Your task to perform on an android device: Empty the shopping cart on walmart.com. Search for "usb-c" on walmart.com, select the first entry, and add it to the cart. Image 0: 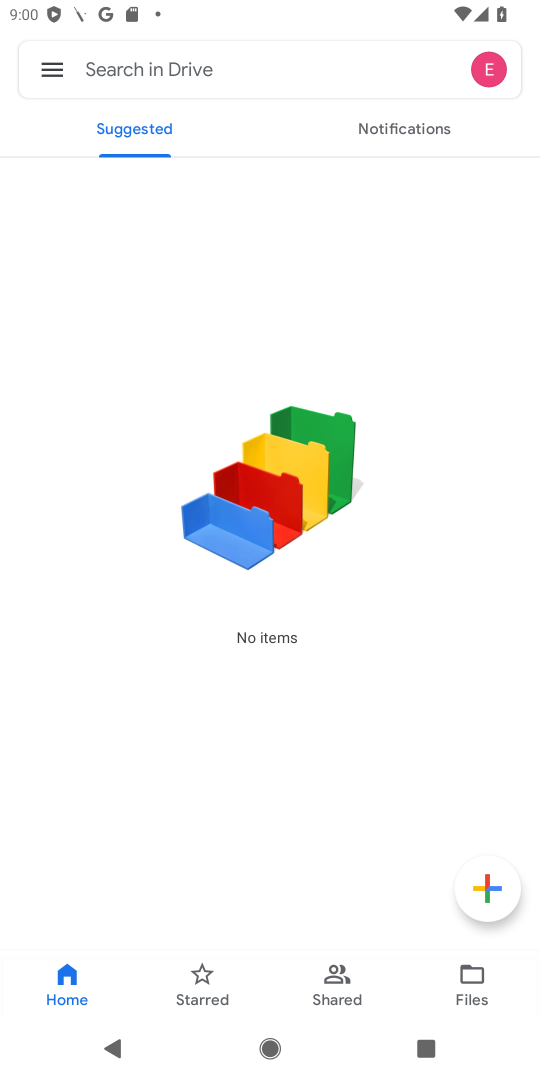
Step 0: press home button
Your task to perform on an android device: Empty the shopping cart on walmart.com. Search for "usb-c" on walmart.com, select the first entry, and add it to the cart. Image 1: 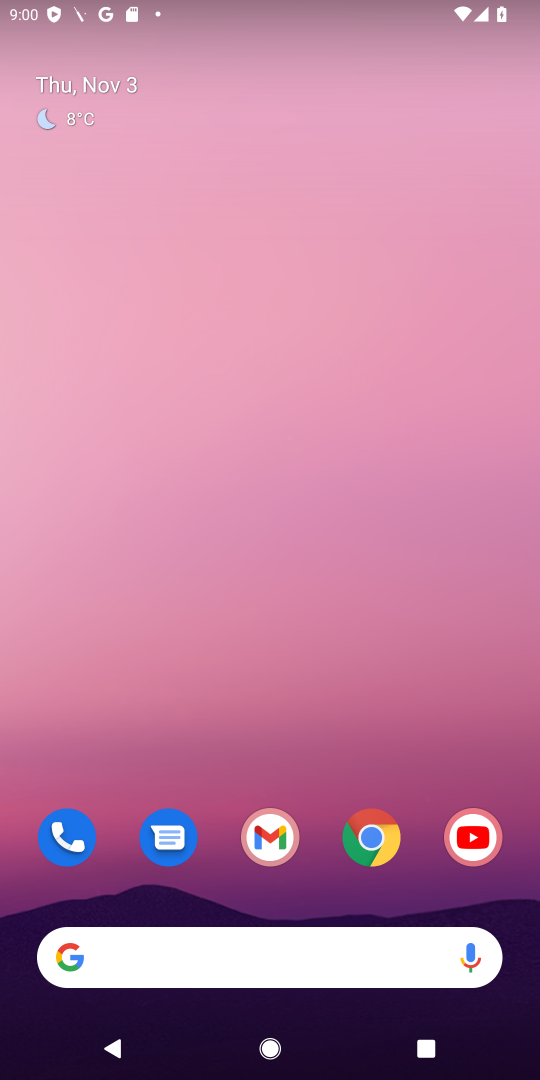
Step 1: click (380, 833)
Your task to perform on an android device: Empty the shopping cart on walmart.com. Search for "usb-c" on walmart.com, select the first entry, and add it to the cart. Image 2: 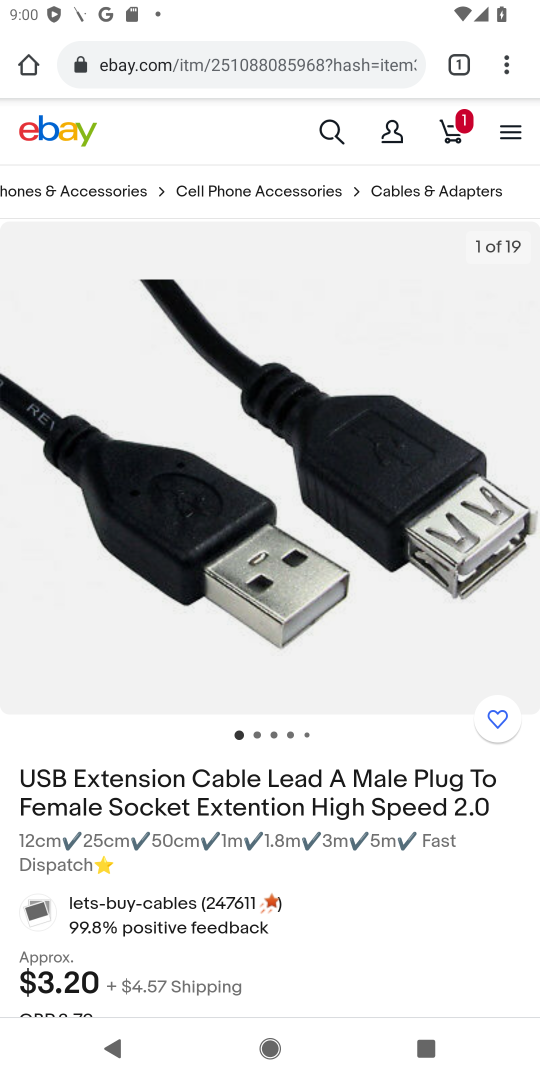
Step 2: click (221, 71)
Your task to perform on an android device: Empty the shopping cart on walmart.com. Search for "usb-c" on walmart.com, select the first entry, and add it to the cart. Image 3: 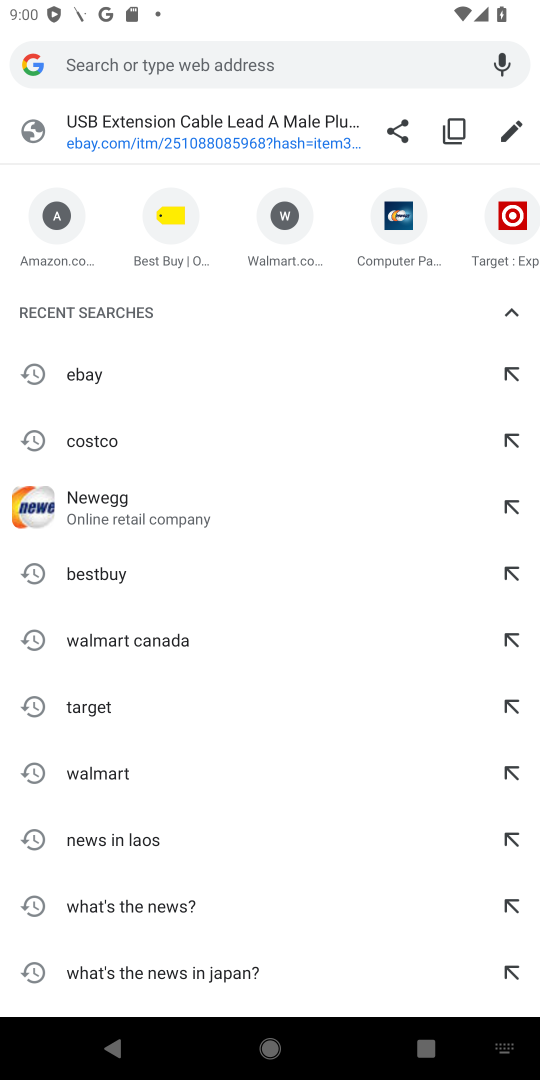
Step 3: click (279, 261)
Your task to perform on an android device: Empty the shopping cart on walmart.com. Search for "usb-c" on walmart.com, select the first entry, and add it to the cart. Image 4: 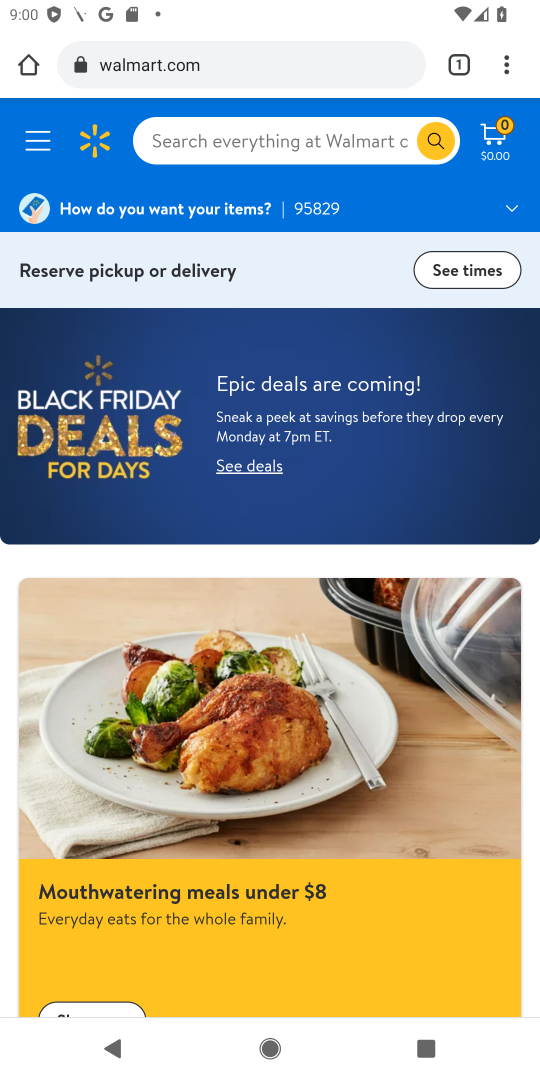
Step 4: click (296, 138)
Your task to perform on an android device: Empty the shopping cart on walmart.com. Search for "usb-c" on walmart.com, select the first entry, and add it to the cart. Image 5: 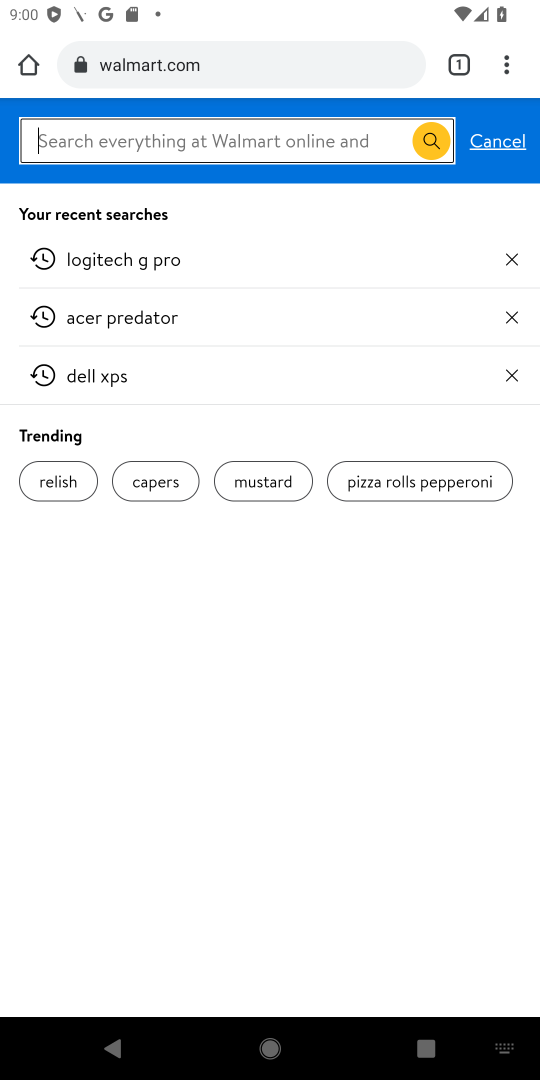
Step 5: press enter
Your task to perform on an android device: Empty the shopping cart on walmart.com. Search for "usb-c" on walmart.com, select the first entry, and add it to the cart. Image 6: 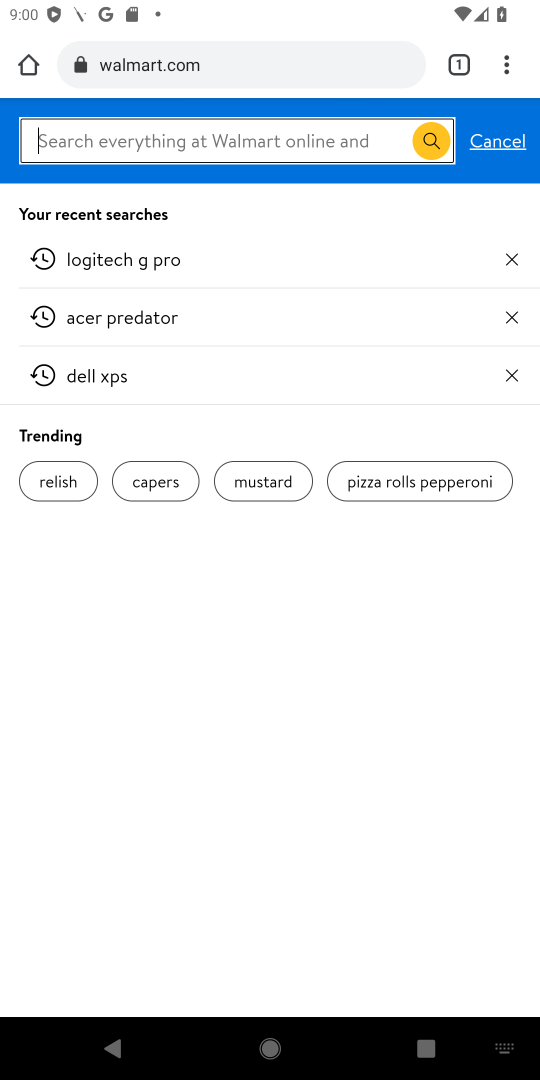
Step 6: type "usb-c"
Your task to perform on an android device: Empty the shopping cart on walmart.com. Search for "usb-c" on walmart.com, select the first entry, and add it to the cart. Image 7: 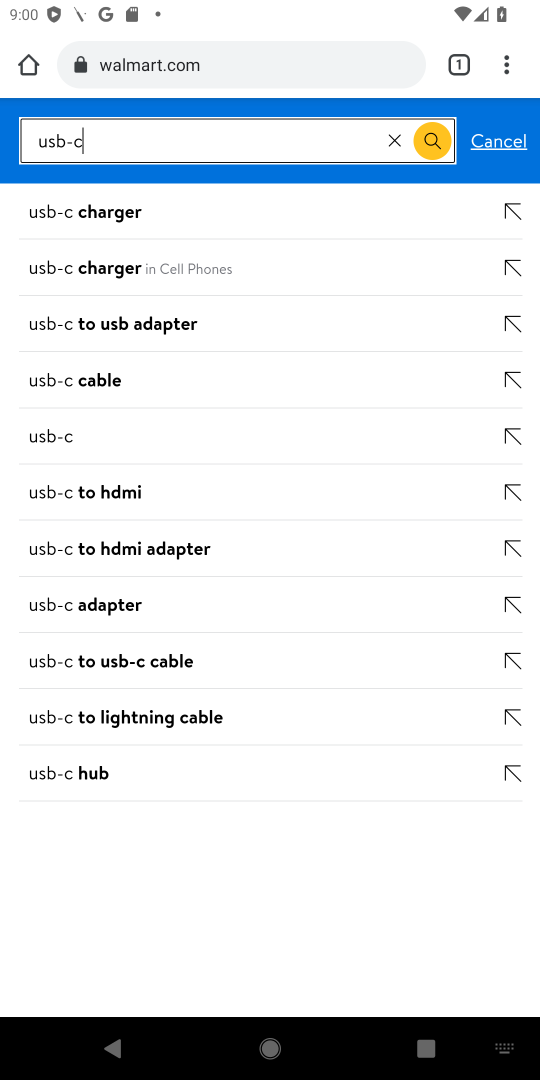
Step 7: press enter
Your task to perform on an android device: Empty the shopping cart on walmart.com. Search for "usb-c" on walmart.com, select the first entry, and add it to the cart. Image 8: 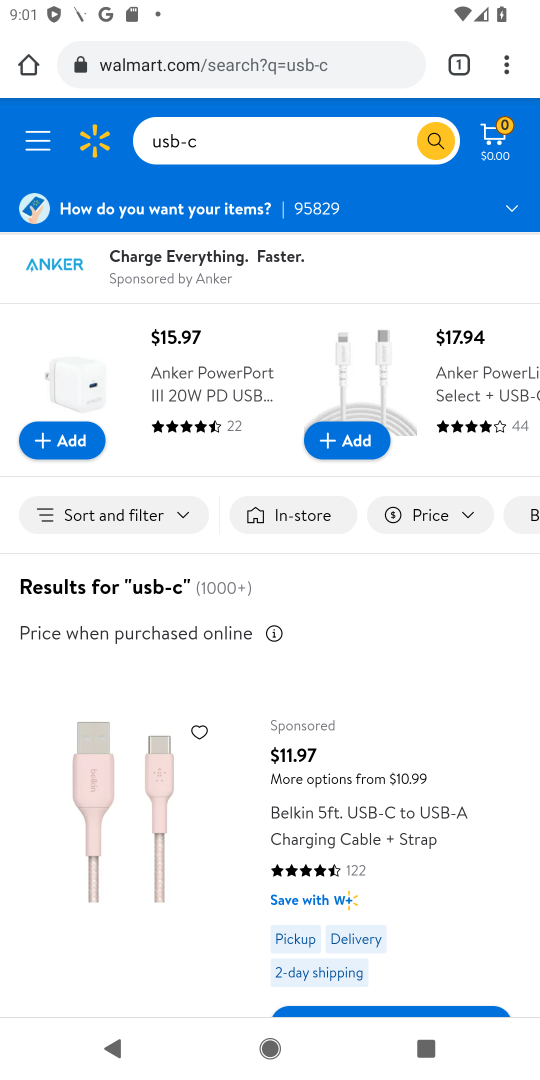
Step 8: click (360, 827)
Your task to perform on an android device: Empty the shopping cart on walmart.com. Search for "usb-c" on walmart.com, select the first entry, and add it to the cart. Image 9: 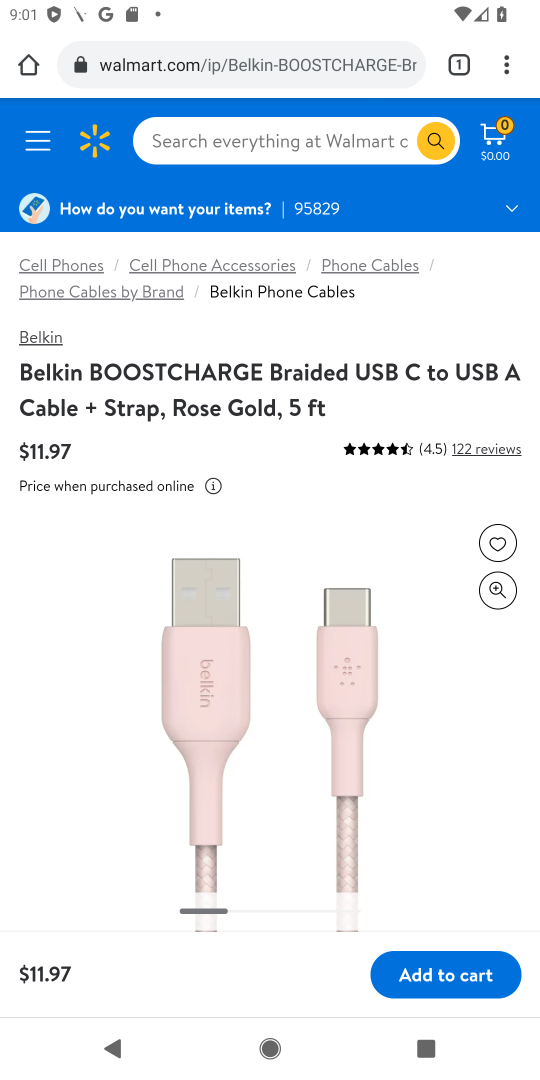
Step 9: drag from (277, 904) to (354, 706)
Your task to perform on an android device: Empty the shopping cart on walmart.com. Search for "usb-c" on walmart.com, select the first entry, and add it to the cart. Image 10: 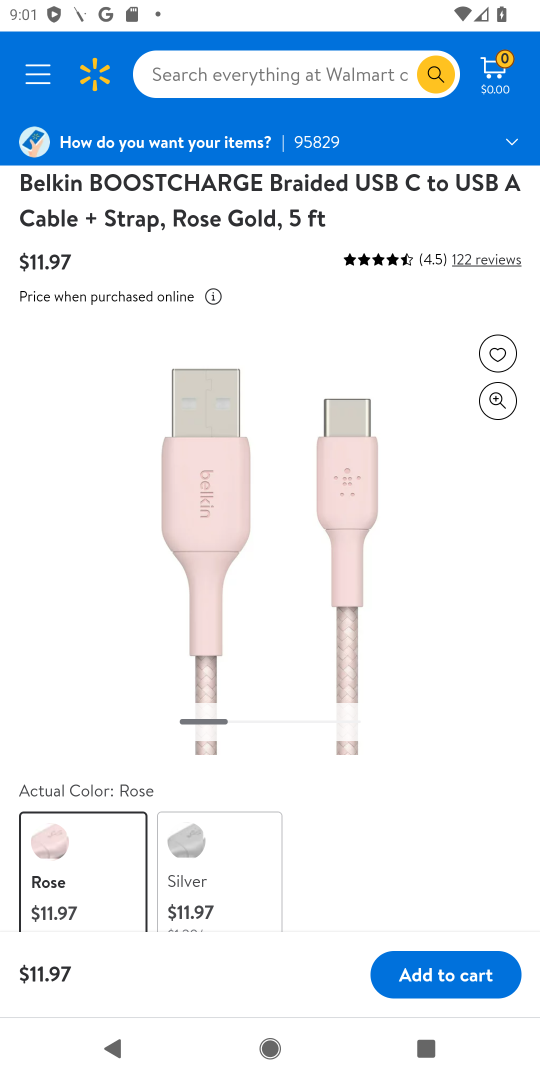
Step 10: click (446, 981)
Your task to perform on an android device: Empty the shopping cart on walmart.com. Search for "usb-c" on walmart.com, select the first entry, and add it to the cart. Image 11: 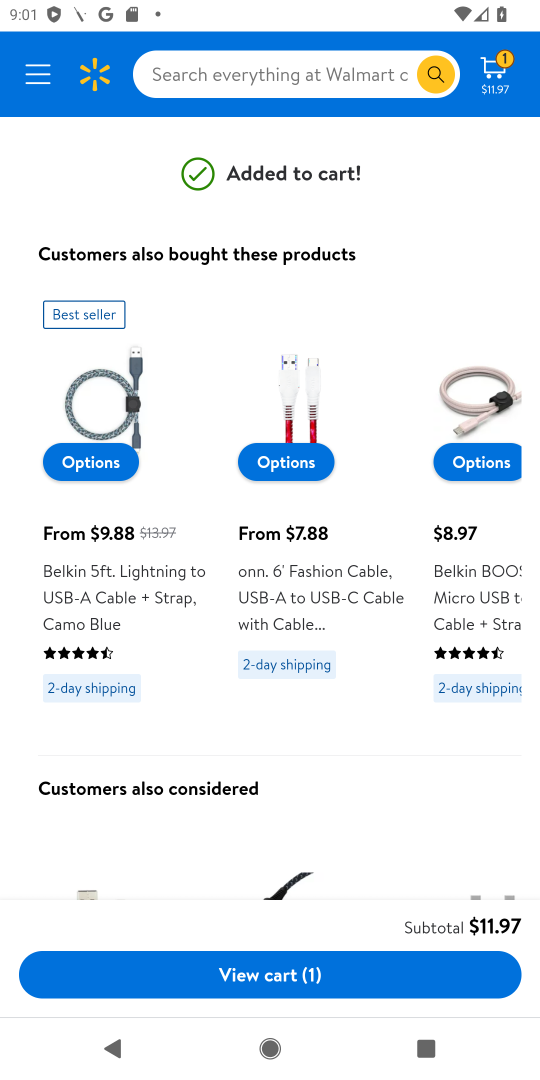
Step 11: task complete